Your task to perform on an android device: What is the recent news? Image 0: 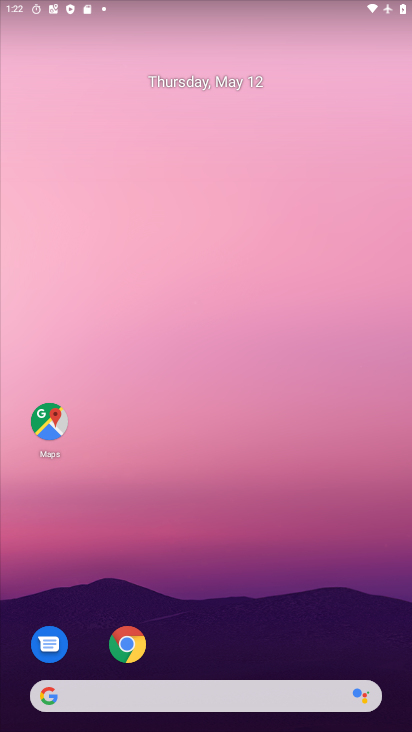
Step 0: drag from (258, 544) to (192, 133)
Your task to perform on an android device: What is the recent news? Image 1: 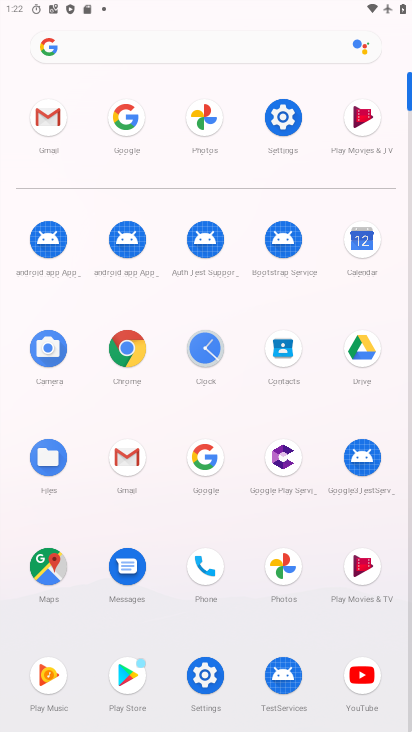
Step 1: click (205, 464)
Your task to perform on an android device: What is the recent news? Image 2: 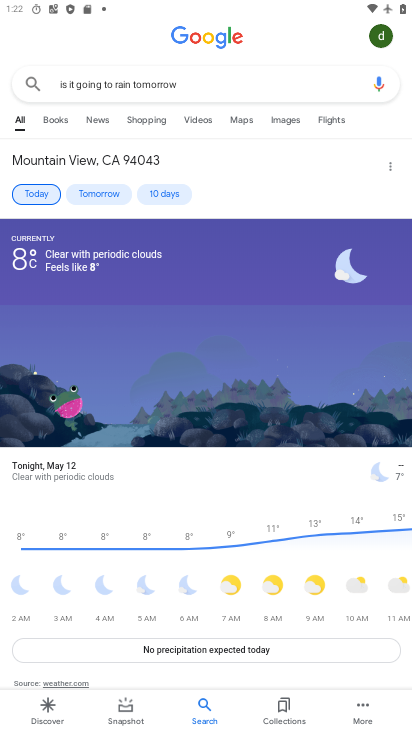
Step 2: click (180, 81)
Your task to perform on an android device: What is the recent news? Image 3: 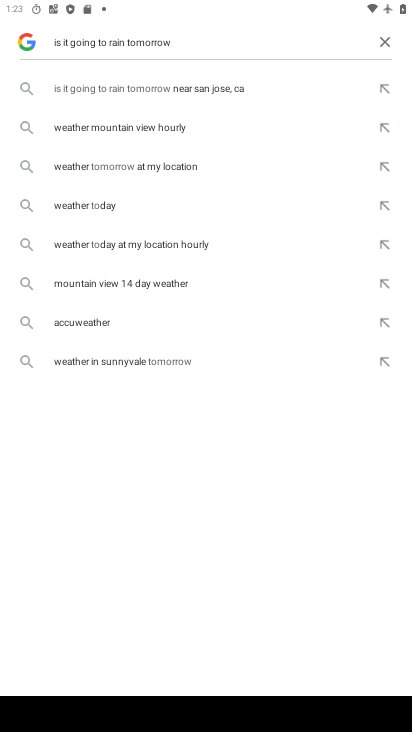
Step 3: click (383, 44)
Your task to perform on an android device: What is the recent news? Image 4: 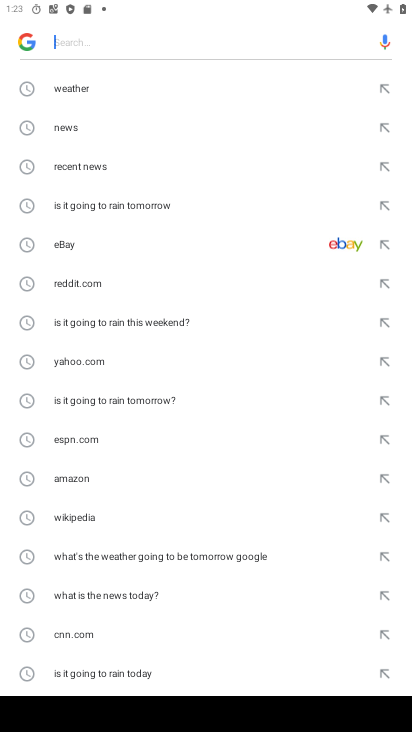
Step 4: type "what is recent news?"
Your task to perform on an android device: What is the recent news? Image 5: 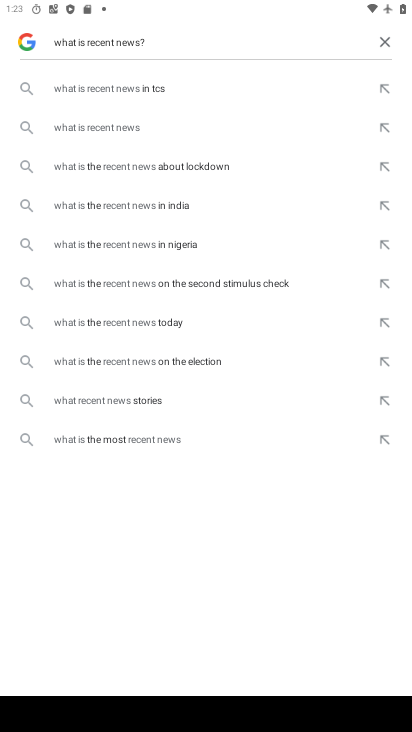
Step 5: click (158, 128)
Your task to perform on an android device: What is the recent news? Image 6: 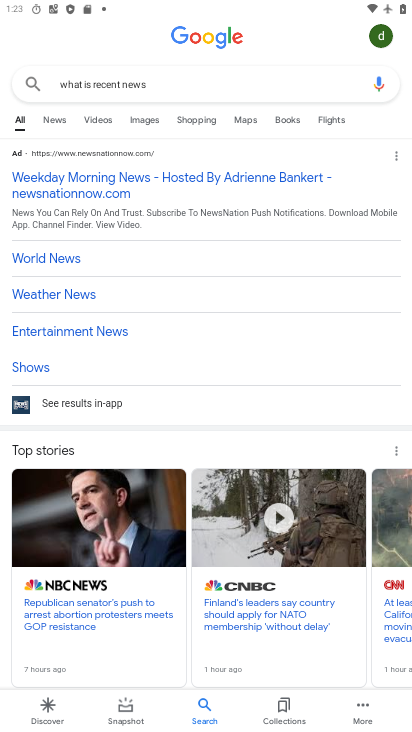
Step 6: task complete